Your task to perform on an android device: Open the calendar app, open the side menu, and click the "Day" option Image 0: 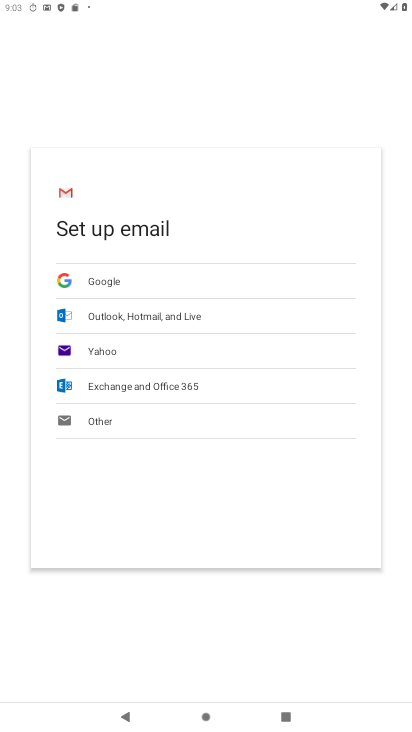
Step 0: drag from (324, 666) to (201, 158)
Your task to perform on an android device: Open the calendar app, open the side menu, and click the "Day" option Image 1: 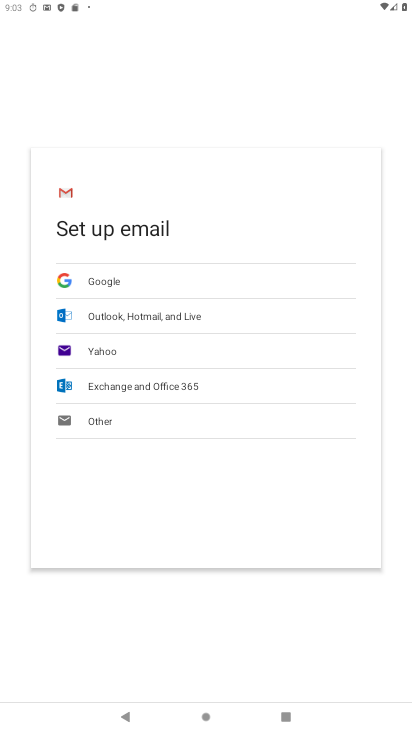
Step 1: press back button
Your task to perform on an android device: Open the calendar app, open the side menu, and click the "Day" option Image 2: 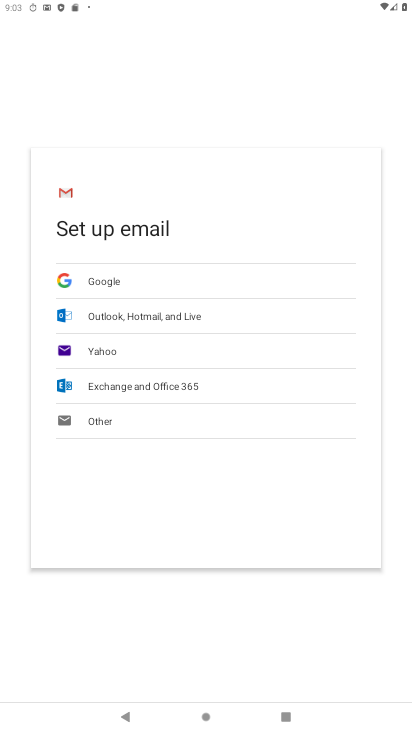
Step 2: press back button
Your task to perform on an android device: Open the calendar app, open the side menu, and click the "Day" option Image 3: 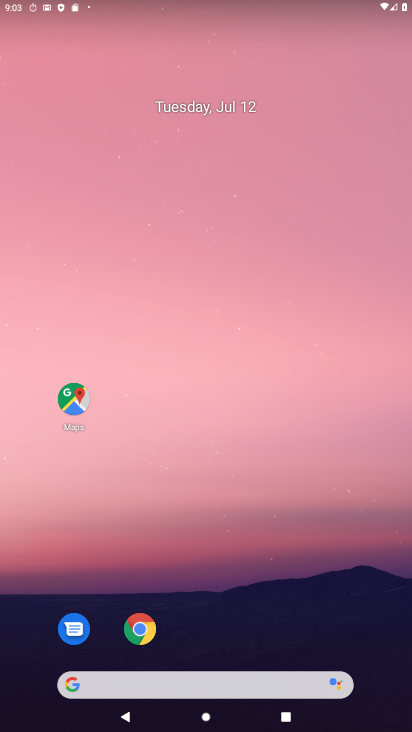
Step 3: drag from (262, 689) to (229, 190)
Your task to perform on an android device: Open the calendar app, open the side menu, and click the "Day" option Image 4: 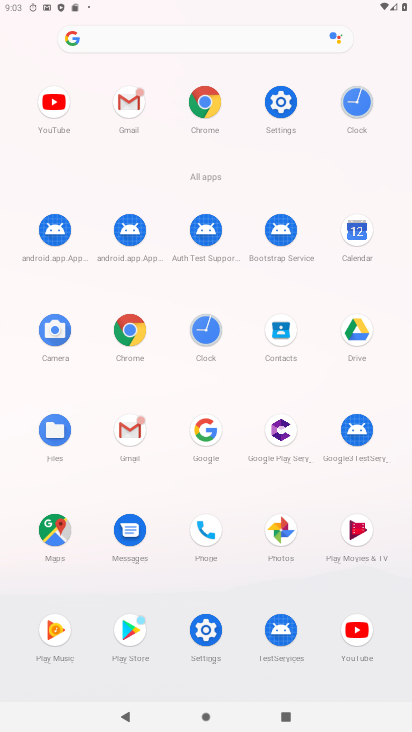
Step 4: click (370, 216)
Your task to perform on an android device: Open the calendar app, open the side menu, and click the "Day" option Image 5: 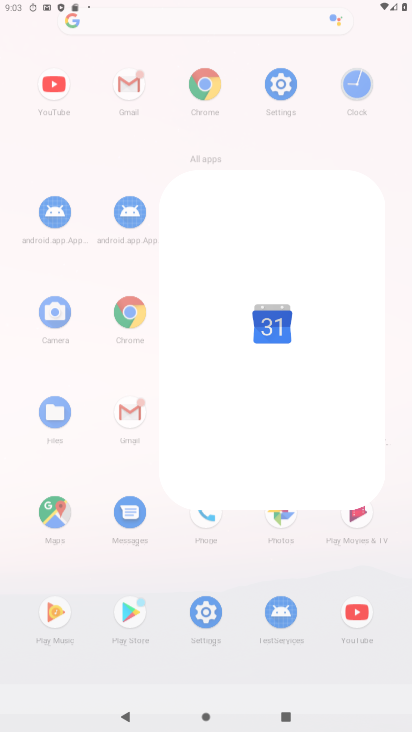
Step 5: click (364, 240)
Your task to perform on an android device: Open the calendar app, open the side menu, and click the "Day" option Image 6: 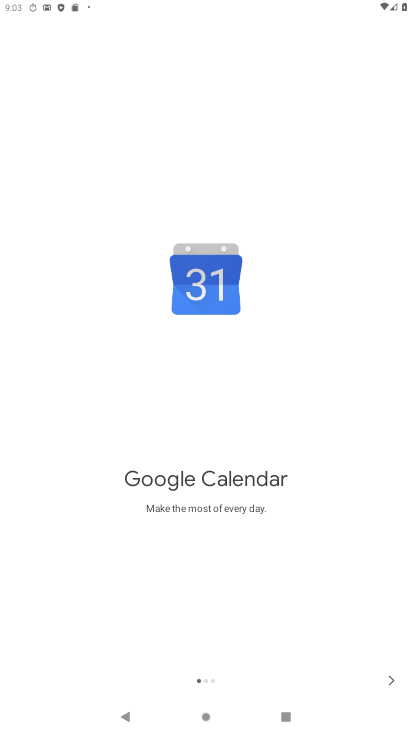
Step 6: click (385, 676)
Your task to perform on an android device: Open the calendar app, open the side menu, and click the "Day" option Image 7: 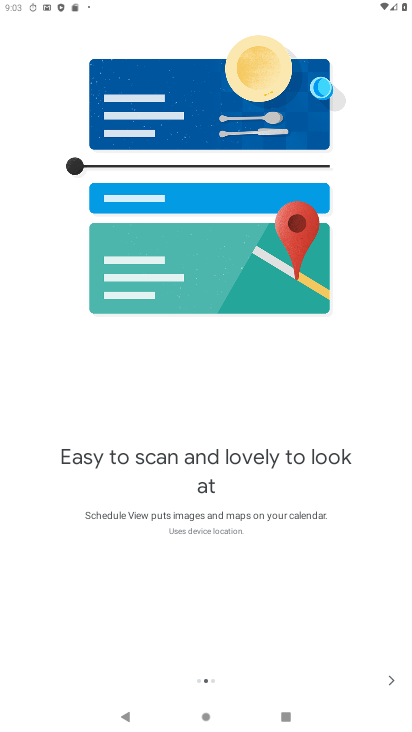
Step 7: click (385, 676)
Your task to perform on an android device: Open the calendar app, open the side menu, and click the "Day" option Image 8: 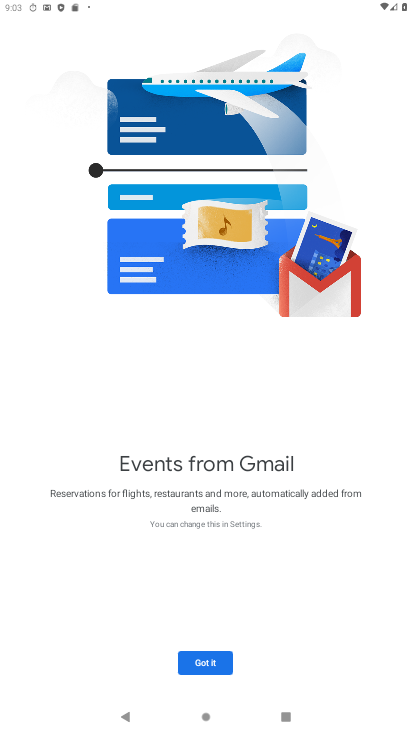
Step 8: click (230, 667)
Your task to perform on an android device: Open the calendar app, open the side menu, and click the "Day" option Image 9: 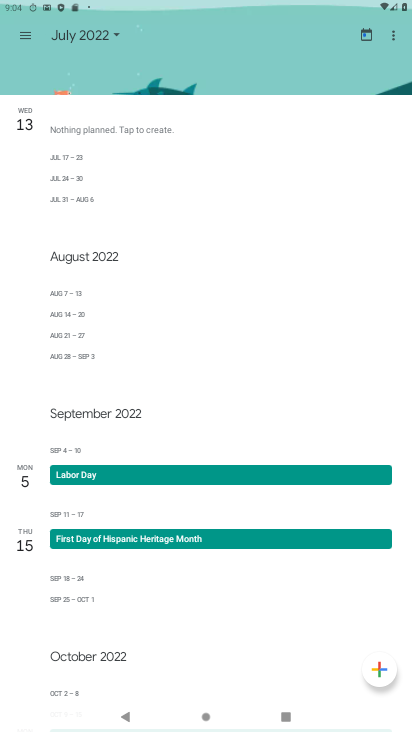
Step 9: click (15, 29)
Your task to perform on an android device: Open the calendar app, open the side menu, and click the "Day" option Image 10: 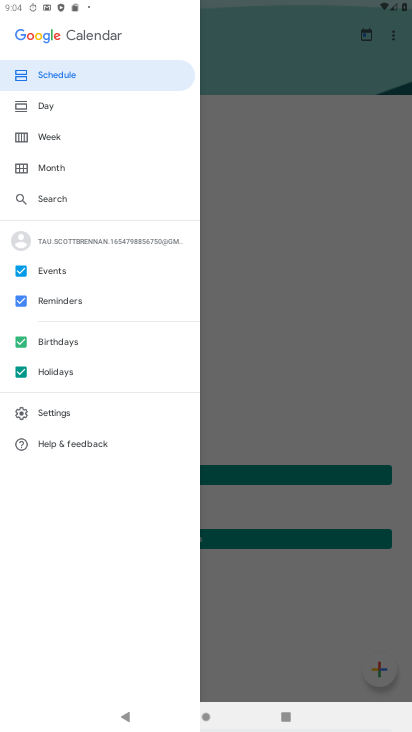
Step 10: click (44, 109)
Your task to perform on an android device: Open the calendar app, open the side menu, and click the "Day" option Image 11: 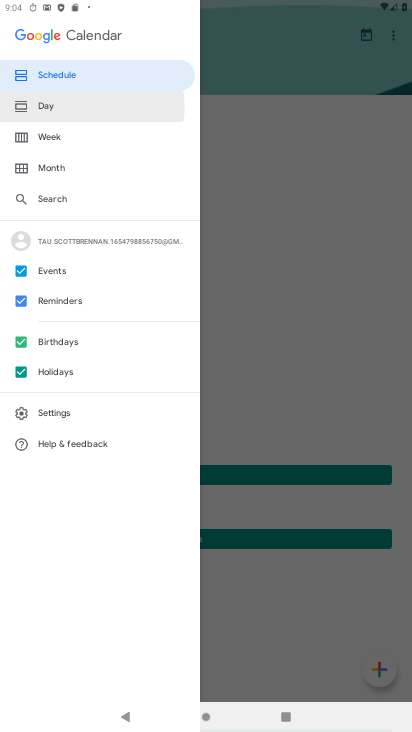
Step 11: click (52, 106)
Your task to perform on an android device: Open the calendar app, open the side menu, and click the "Day" option Image 12: 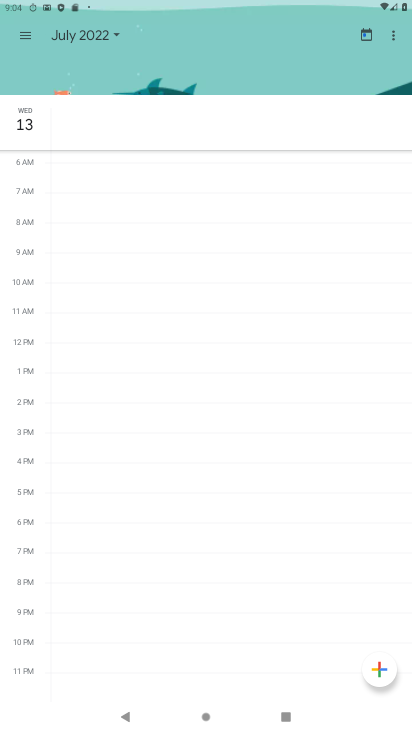
Step 12: task complete